Your task to perform on an android device: Go to wifi settings Image 0: 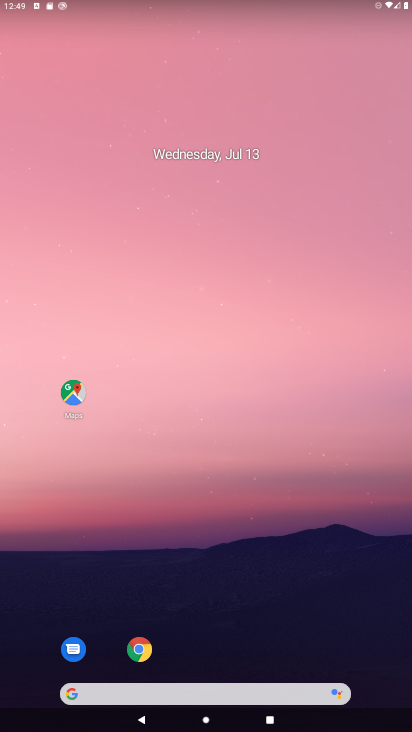
Step 0: drag from (346, 635) to (279, 141)
Your task to perform on an android device: Go to wifi settings Image 1: 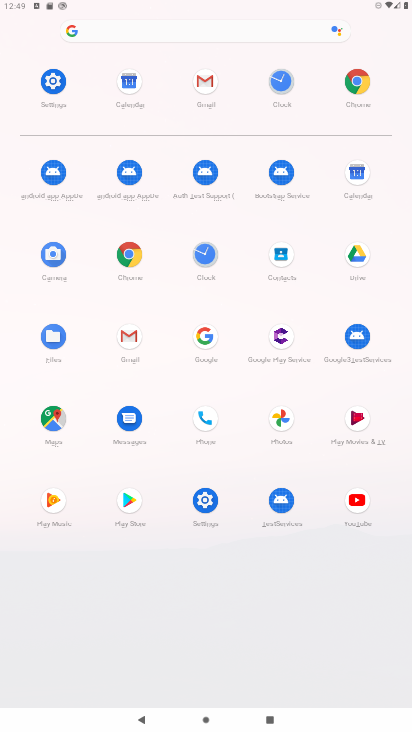
Step 1: click (203, 502)
Your task to perform on an android device: Go to wifi settings Image 2: 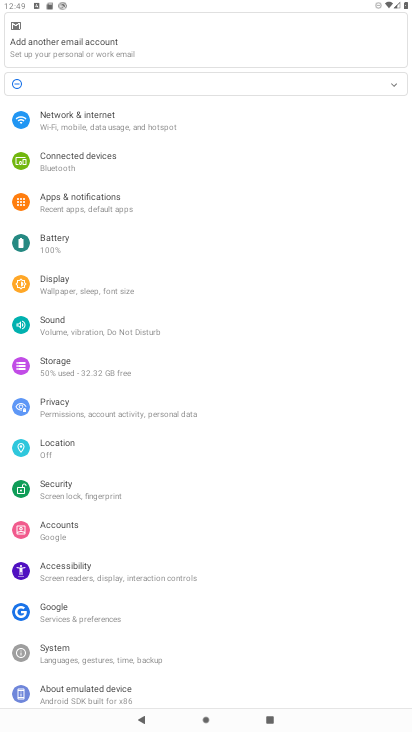
Step 2: click (75, 118)
Your task to perform on an android device: Go to wifi settings Image 3: 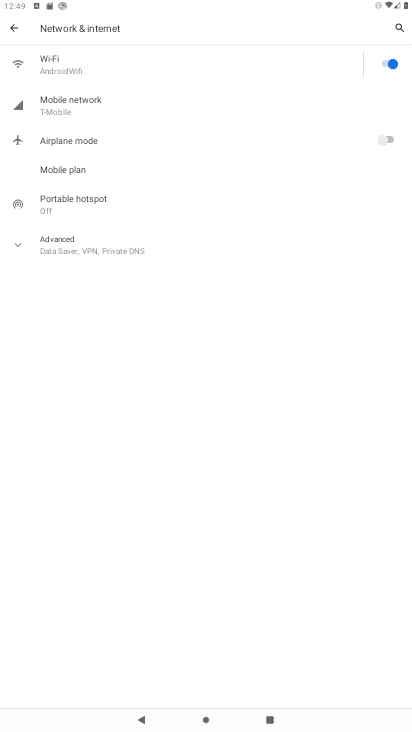
Step 3: click (37, 66)
Your task to perform on an android device: Go to wifi settings Image 4: 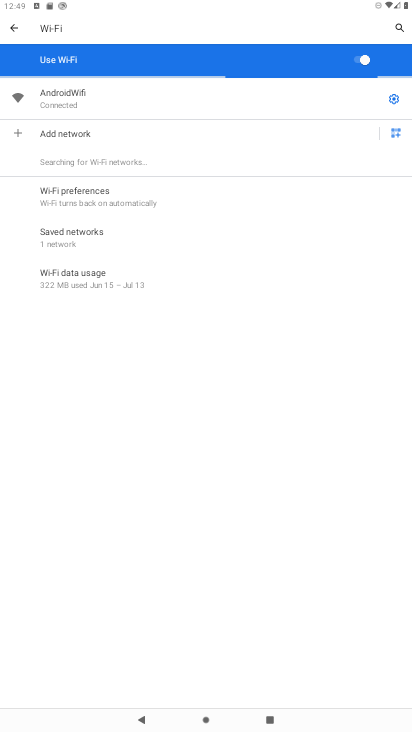
Step 4: task complete